Your task to perform on an android device: Open network settings Image 0: 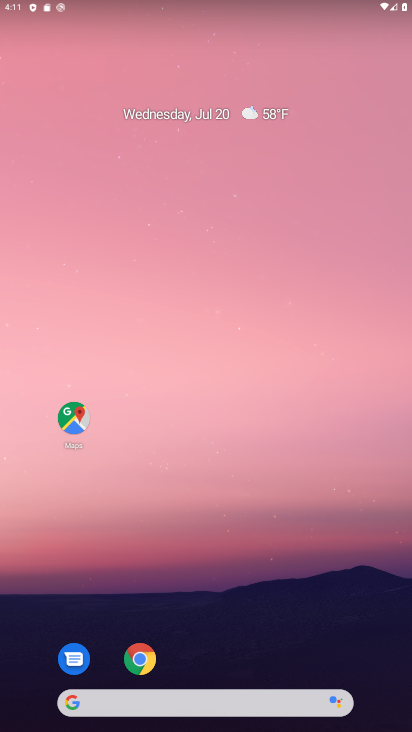
Step 0: drag from (141, 708) to (222, 16)
Your task to perform on an android device: Open network settings Image 1: 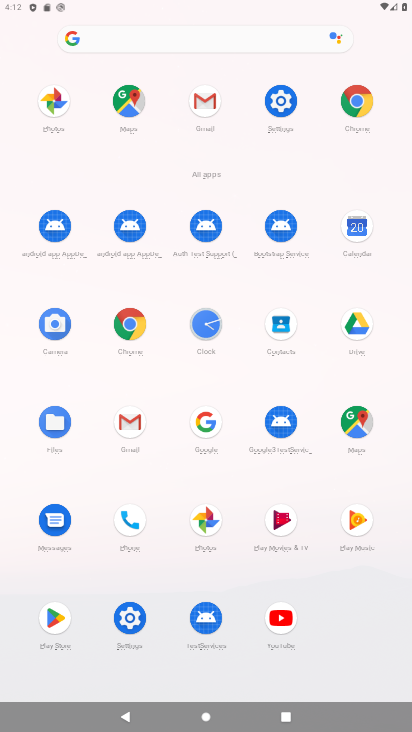
Step 1: click (275, 101)
Your task to perform on an android device: Open network settings Image 2: 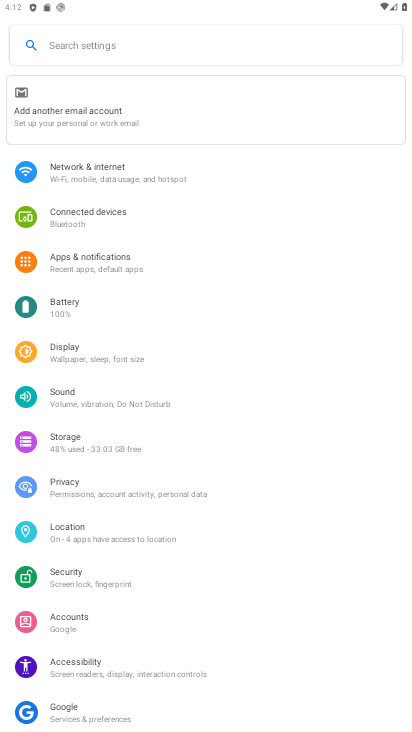
Step 2: click (125, 173)
Your task to perform on an android device: Open network settings Image 3: 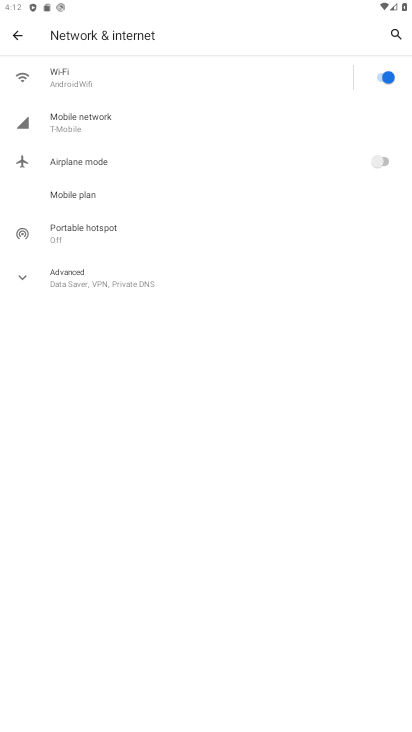
Step 3: click (124, 128)
Your task to perform on an android device: Open network settings Image 4: 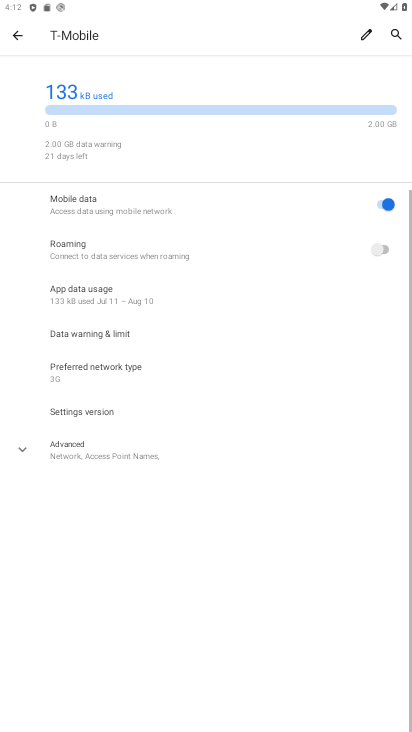
Step 4: task complete